Your task to perform on an android device: Open CNN.com Image 0: 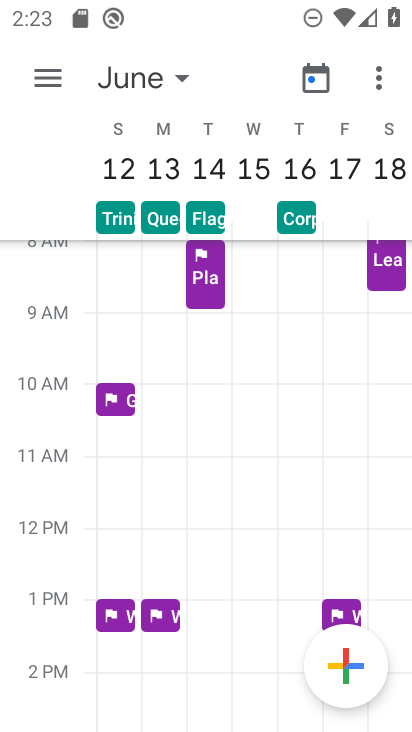
Step 0: press home button
Your task to perform on an android device: Open CNN.com Image 1: 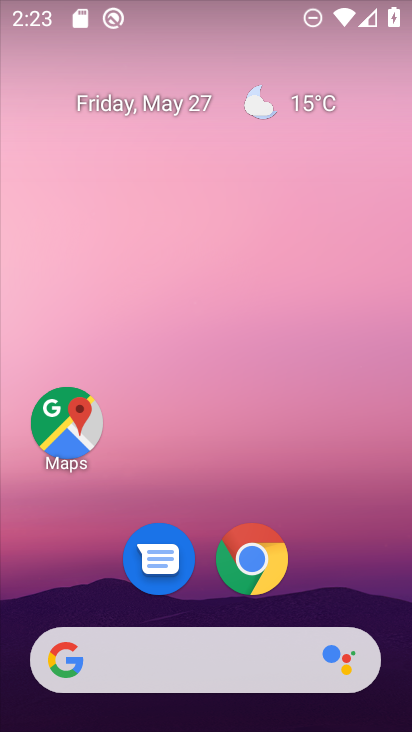
Step 1: drag from (251, 643) to (300, 27)
Your task to perform on an android device: Open CNN.com Image 2: 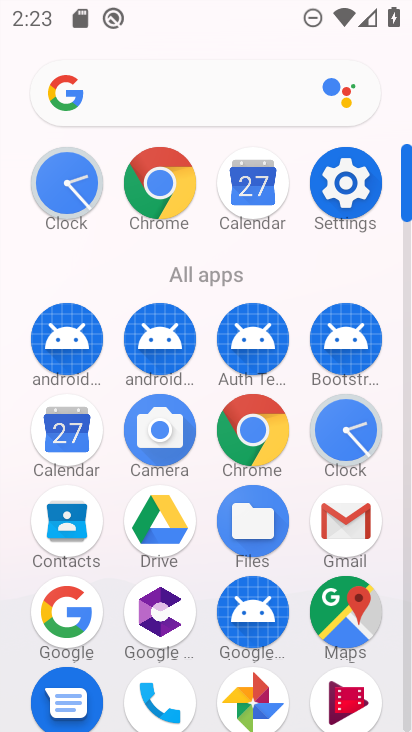
Step 2: click (250, 423)
Your task to perform on an android device: Open CNN.com Image 3: 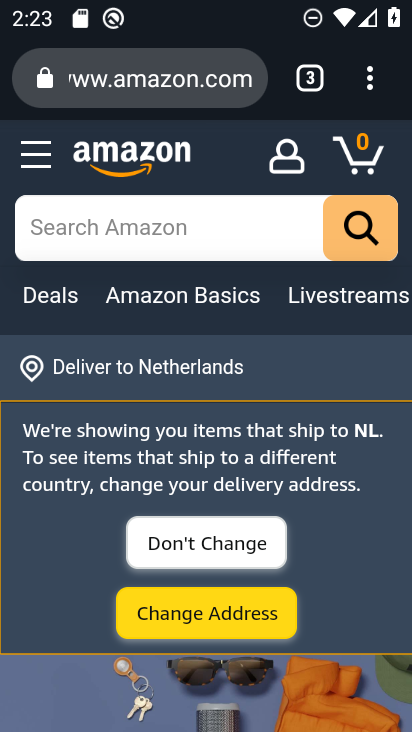
Step 3: click (217, 85)
Your task to perform on an android device: Open CNN.com Image 4: 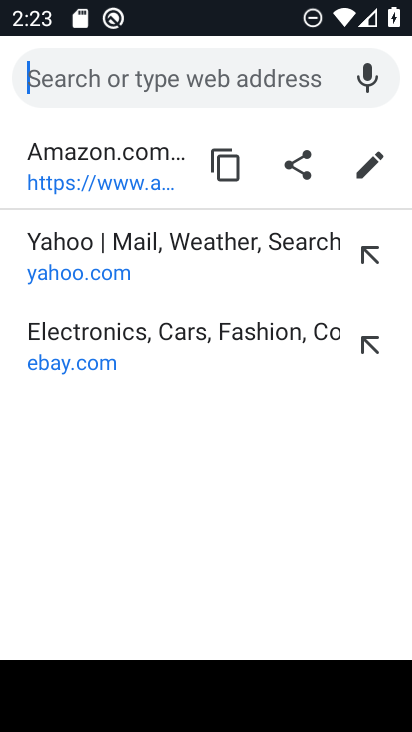
Step 4: type "cnn.com"
Your task to perform on an android device: Open CNN.com Image 5: 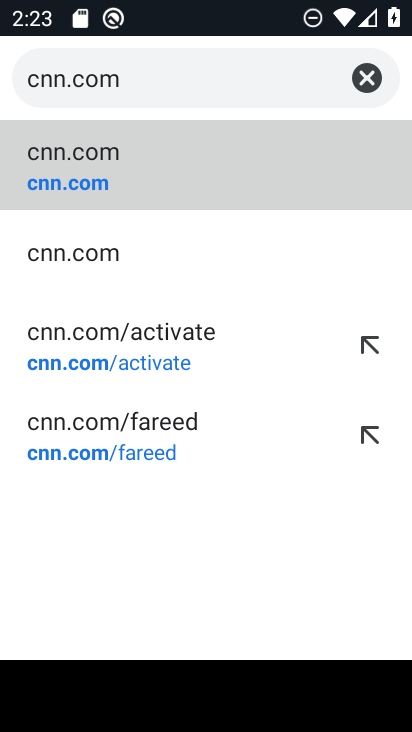
Step 5: click (113, 178)
Your task to perform on an android device: Open CNN.com Image 6: 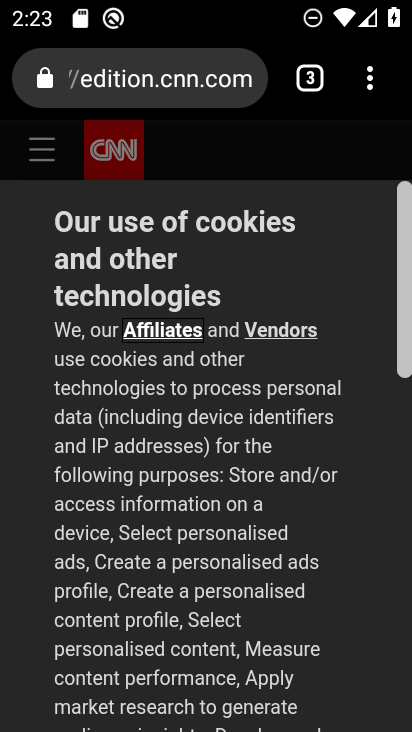
Step 6: task complete